Your task to perform on an android device: turn on wifi Image 0: 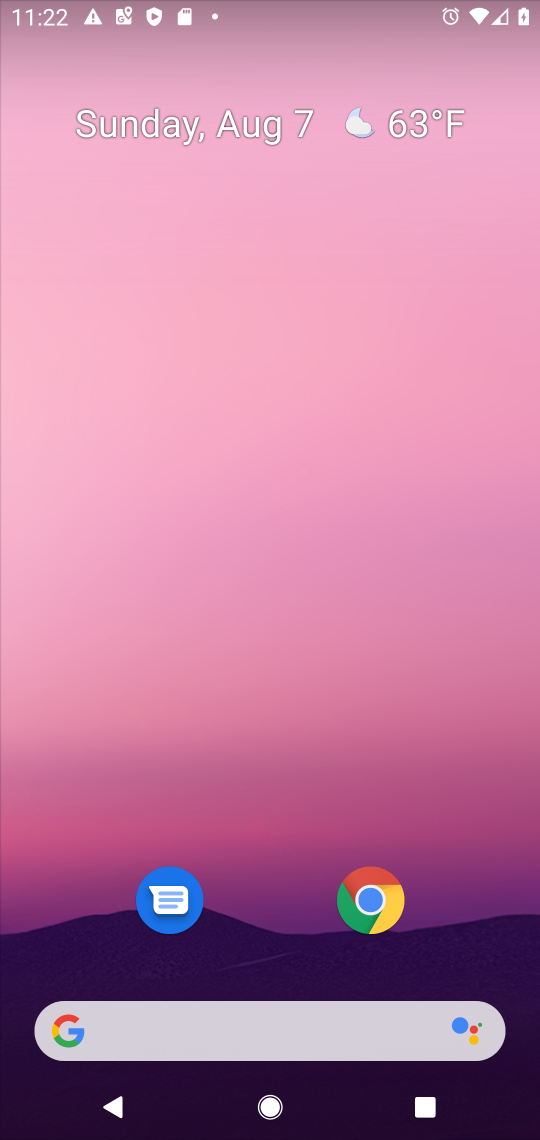
Step 0: press home button
Your task to perform on an android device: turn on wifi Image 1: 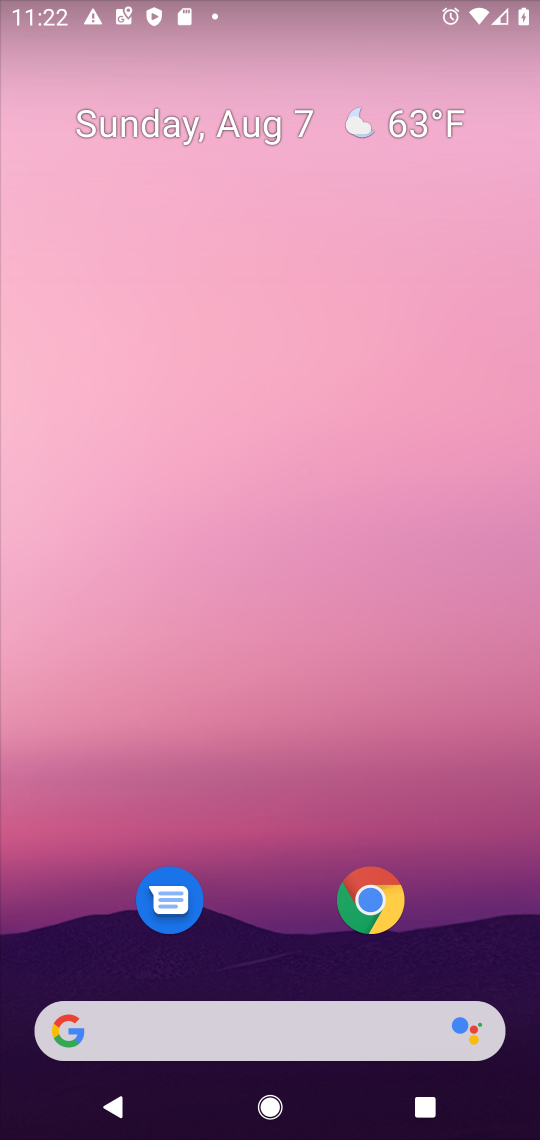
Step 1: task complete